Your task to perform on an android device: turn off notifications settings in the gmail app Image 0: 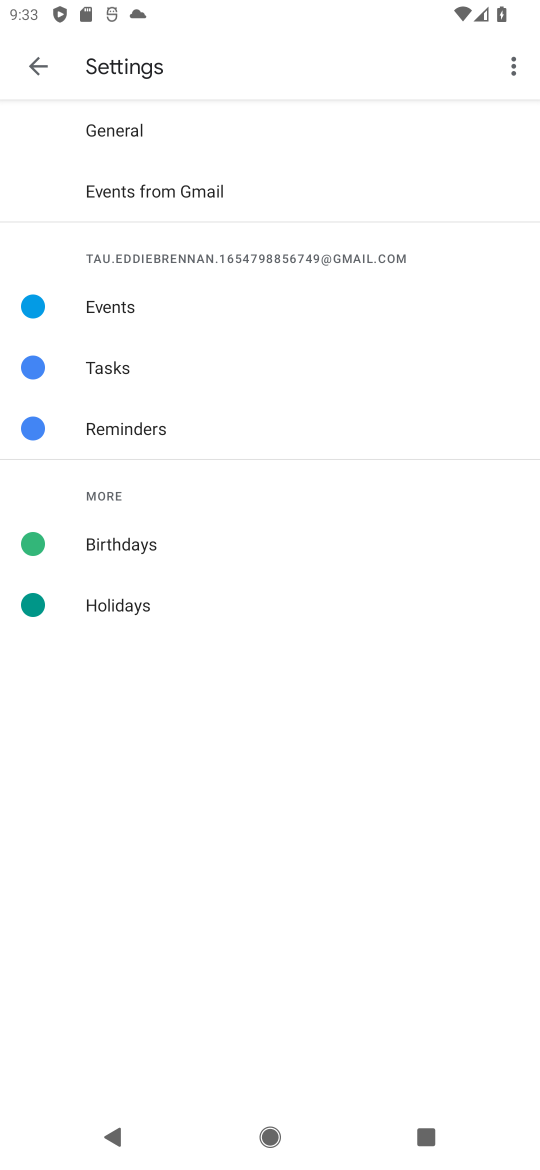
Step 0: press home button
Your task to perform on an android device: turn off notifications settings in the gmail app Image 1: 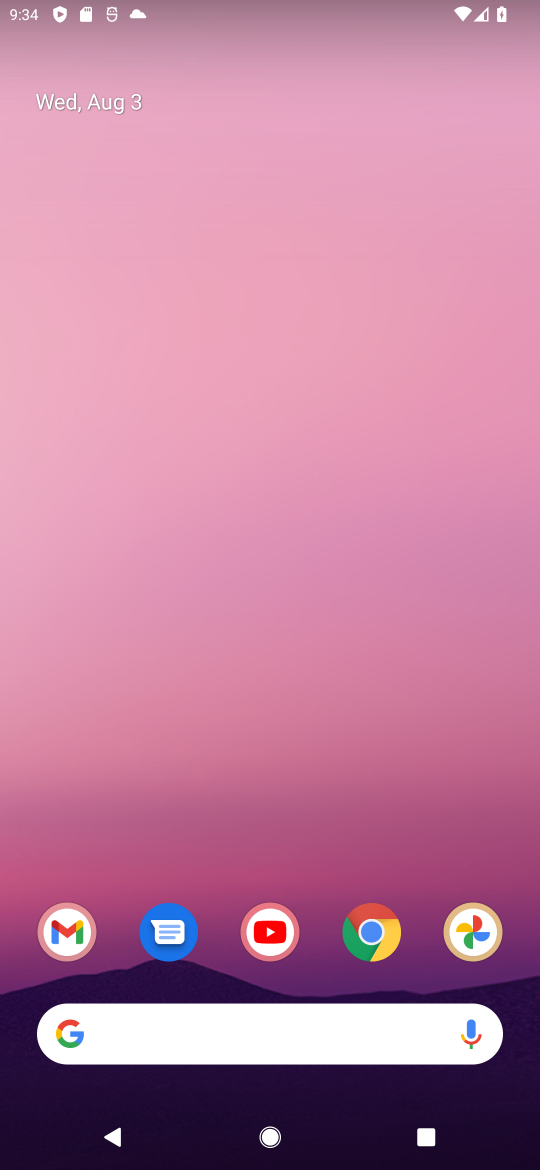
Step 1: click (84, 930)
Your task to perform on an android device: turn off notifications settings in the gmail app Image 2: 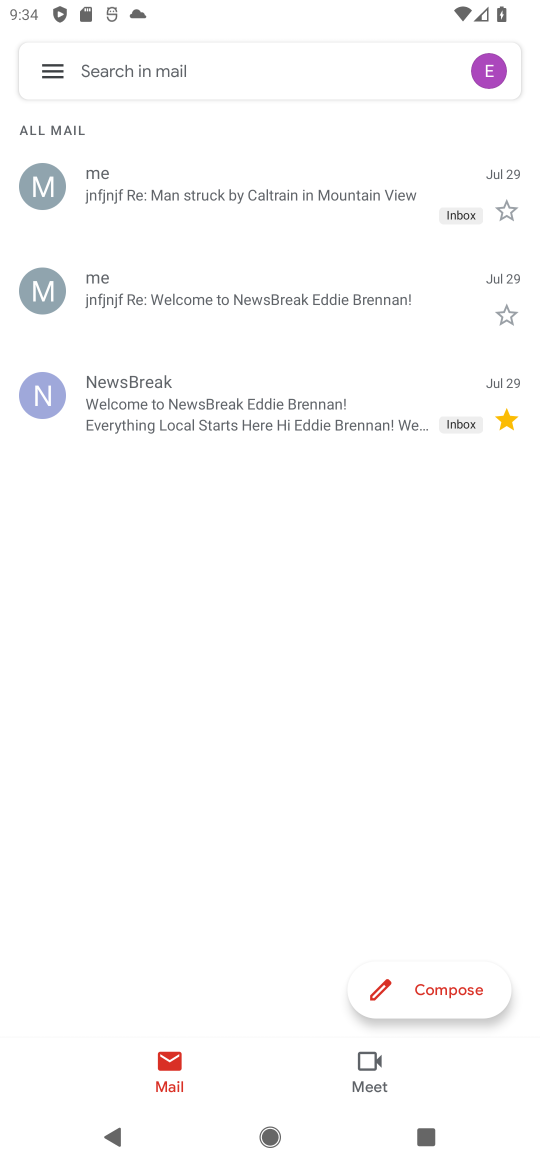
Step 2: click (55, 74)
Your task to perform on an android device: turn off notifications settings in the gmail app Image 3: 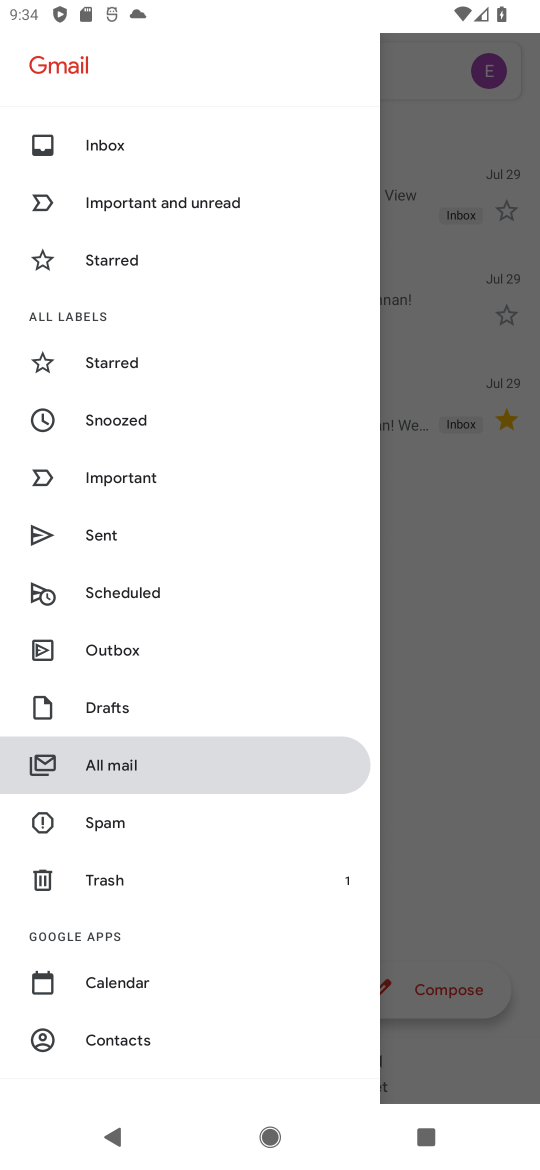
Step 3: drag from (178, 968) to (153, 104)
Your task to perform on an android device: turn off notifications settings in the gmail app Image 4: 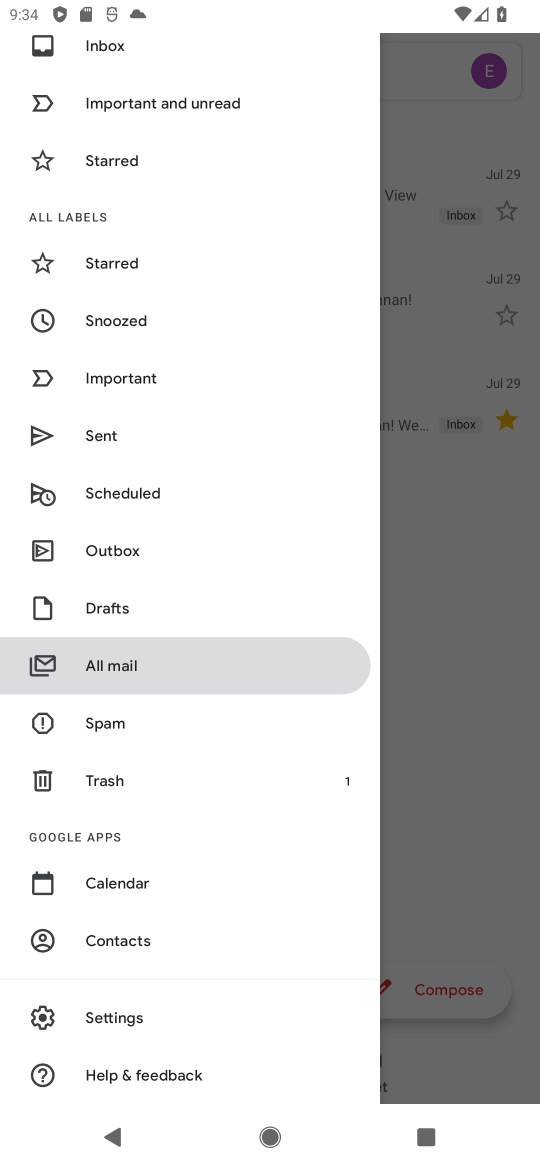
Step 4: click (184, 1030)
Your task to perform on an android device: turn off notifications settings in the gmail app Image 5: 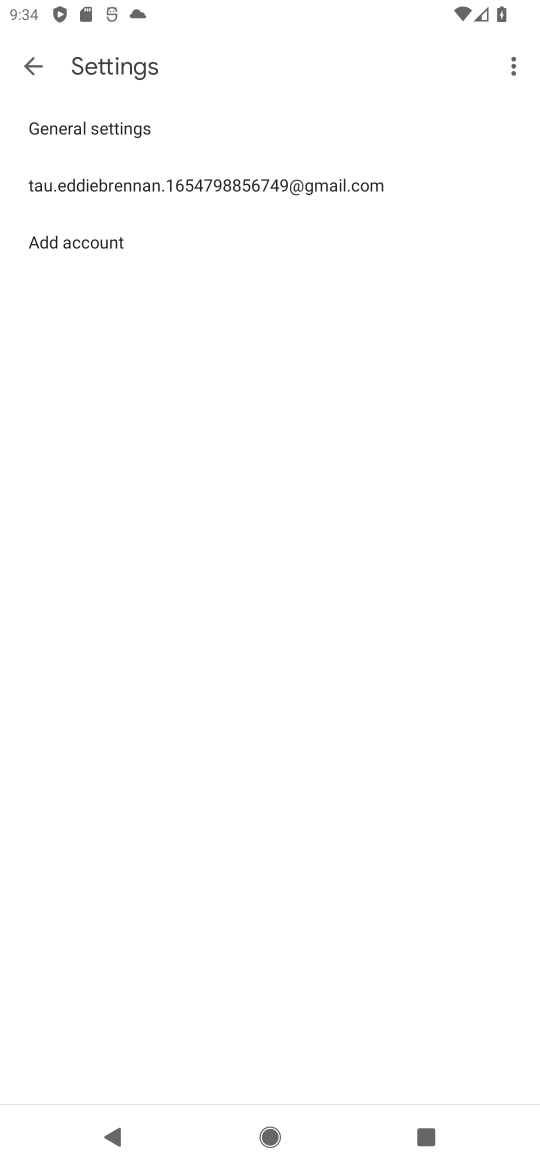
Step 5: click (161, 192)
Your task to perform on an android device: turn off notifications settings in the gmail app Image 6: 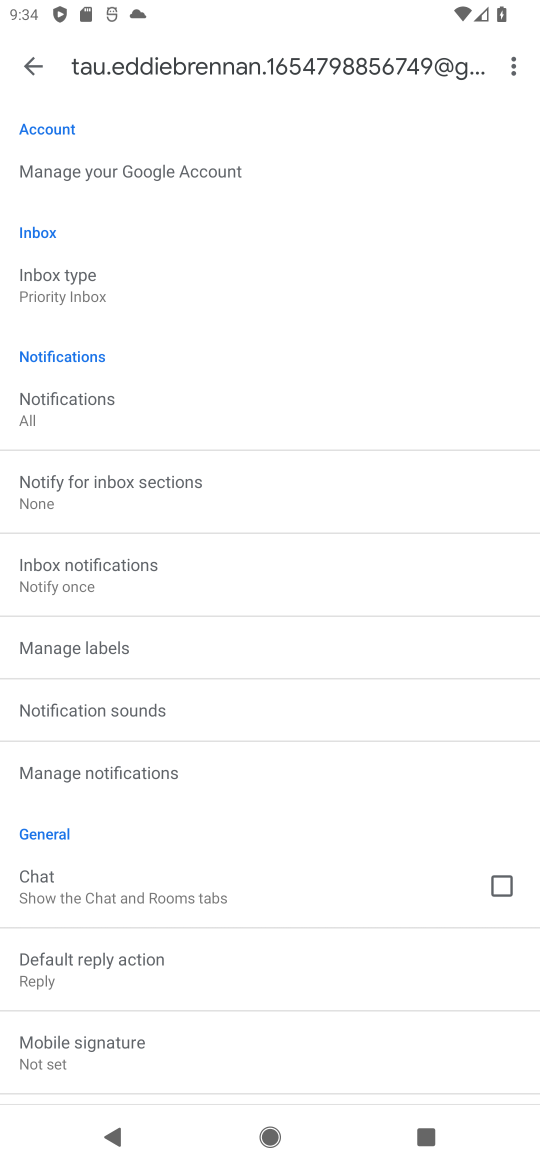
Step 6: click (130, 781)
Your task to perform on an android device: turn off notifications settings in the gmail app Image 7: 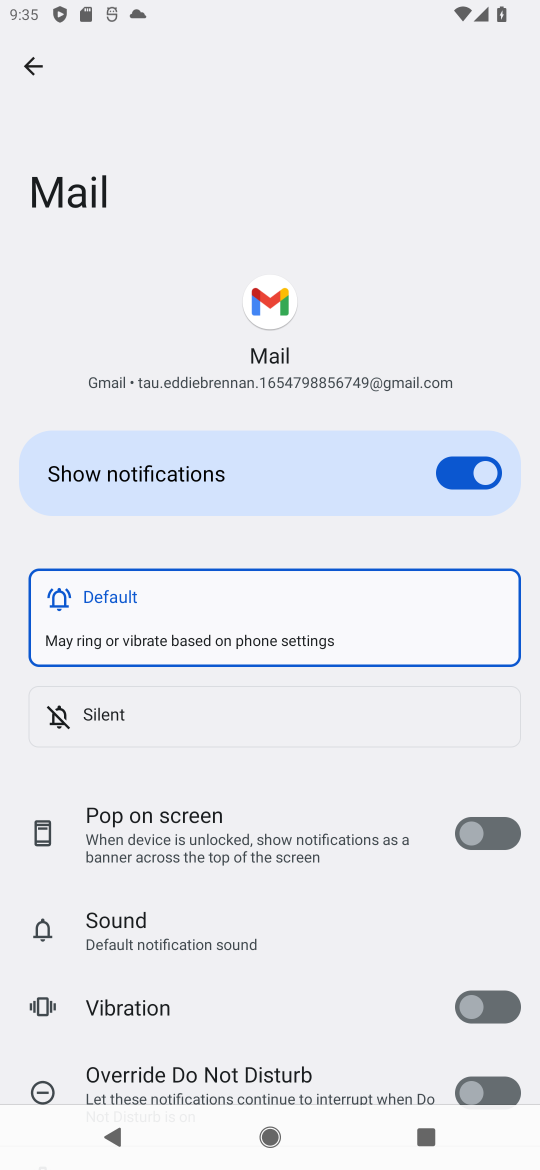
Step 7: task complete